Your task to perform on an android device: Open Google Chrome and click the shortcut for Amazon.com Image 0: 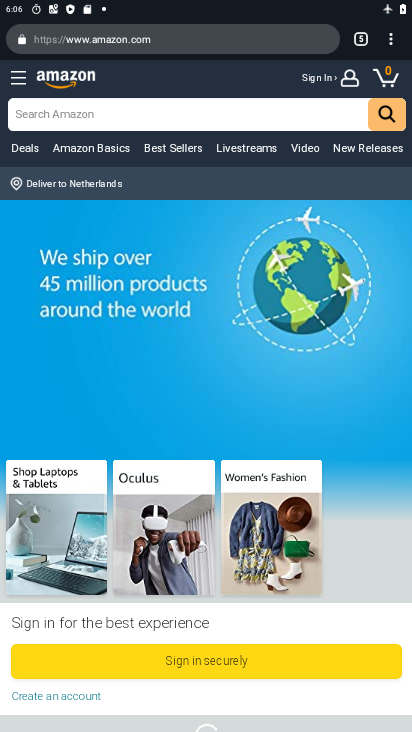
Step 0: press home button
Your task to perform on an android device: Open Google Chrome and click the shortcut for Amazon.com Image 1: 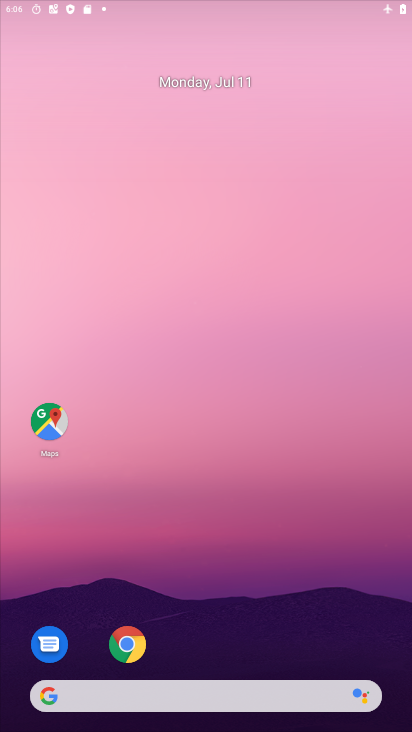
Step 1: drag from (227, 702) to (222, 97)
Your task to perform on an android device: Open Google Chrome and click the shortcut for Amazon.com Image 2: 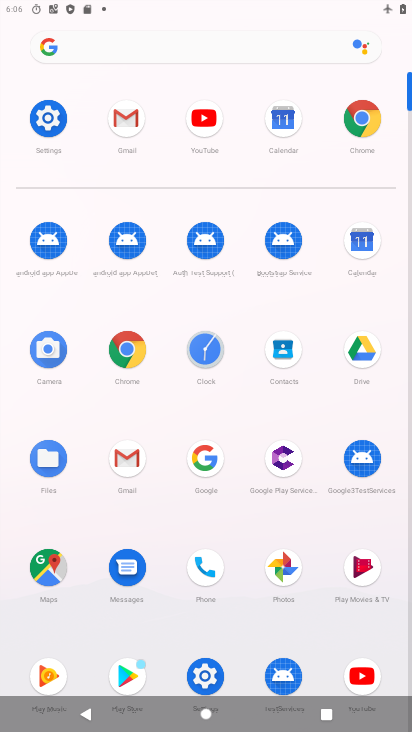
Step 2: click (132, 357)
Your task to perform on an android device: Open Google Chrome and click the shortcut for Amazon.com Image 3: 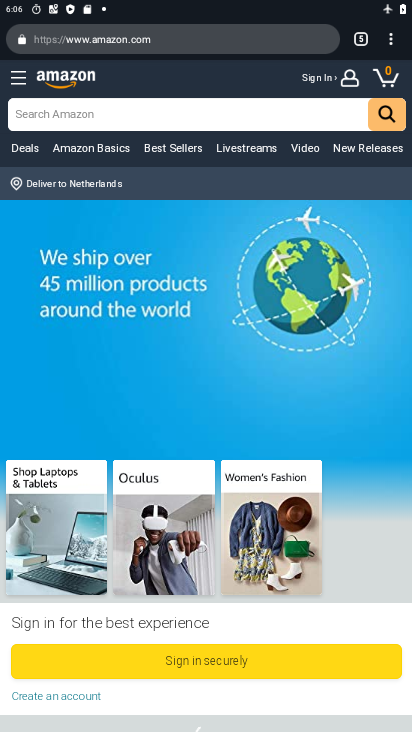
Step 3: drag from (391, 38) to (257, 365)
Your task to perform on an android device: Open Google Chrome and click the shortcut for Amazon.com Image 4: 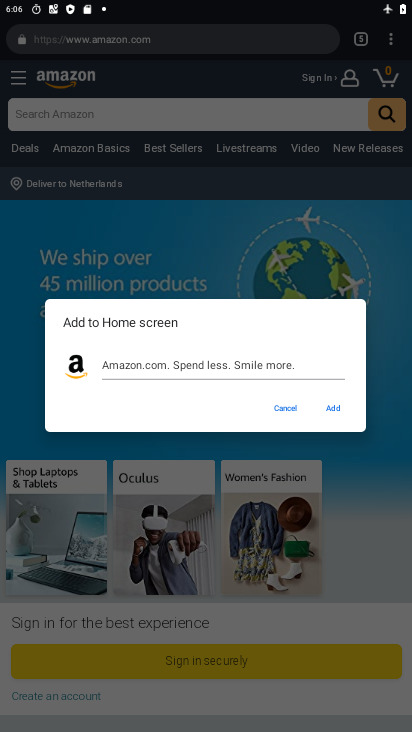
Step 4: click (327, 404)
Your task to perform on an android device: Open Google Chrome and click the shortcut for Amazon.com Image 5: 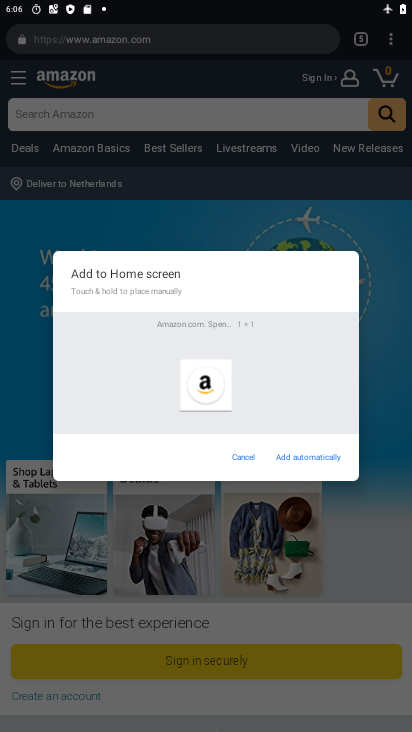
Step 5: click (318, 456)
Your task to perform on an android device: Open Google Chrome and click the shortcut for Amazon.com Image 6: 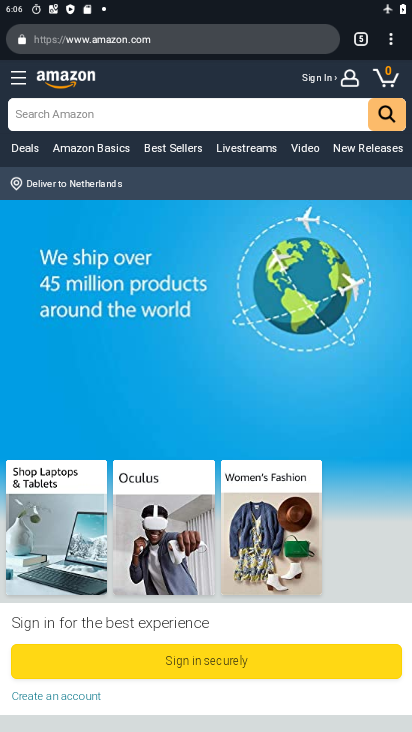
Step 6: task complete